Your task to perform on an android device: Turn on the flashlight Image 0: 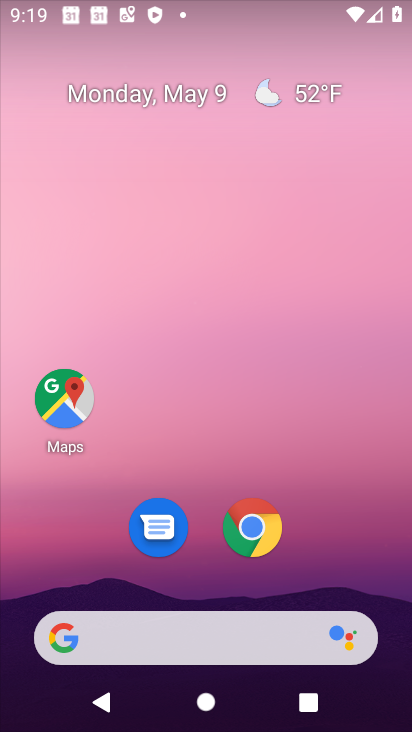
Step 0: drag from (226, 580) to (274, 183)
Your task to perform on an android device: Turn on the flashlight Image 1: 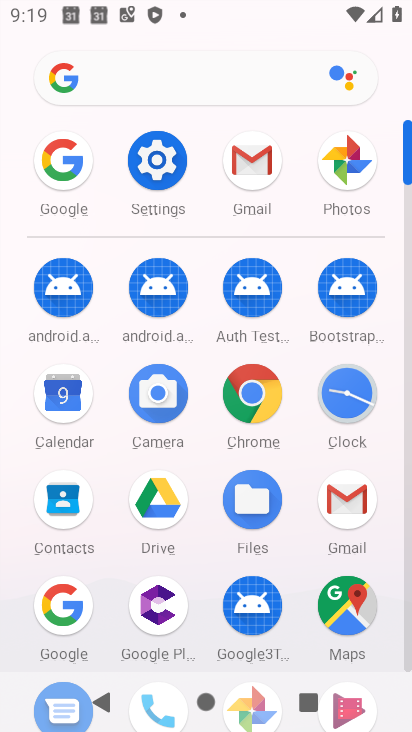
Step 1: click (158, 160)
Your task to perform on an android device: Turn on the flashlight Image 2: 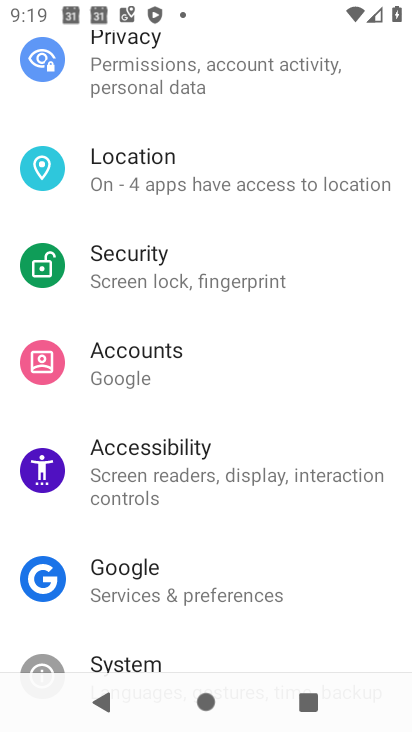
Step 2: drag from (213, 93) to (284, 725)
Your task to perform on an android device: Turn on the flashlight Image 3: 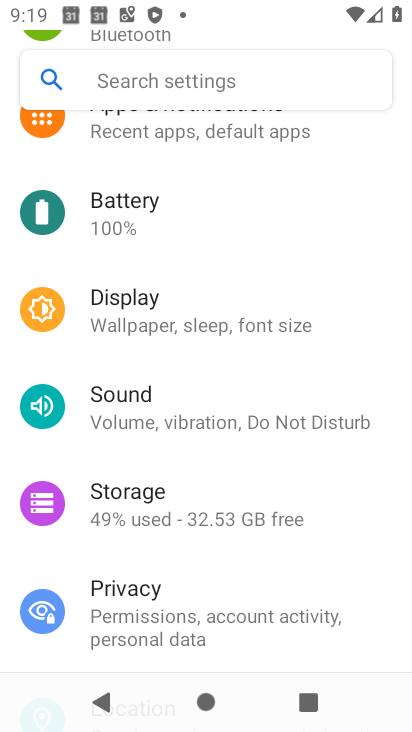
Step 3: click (183, 72)
Your task to perform on an android device: Turn on the flashlight Image 4: 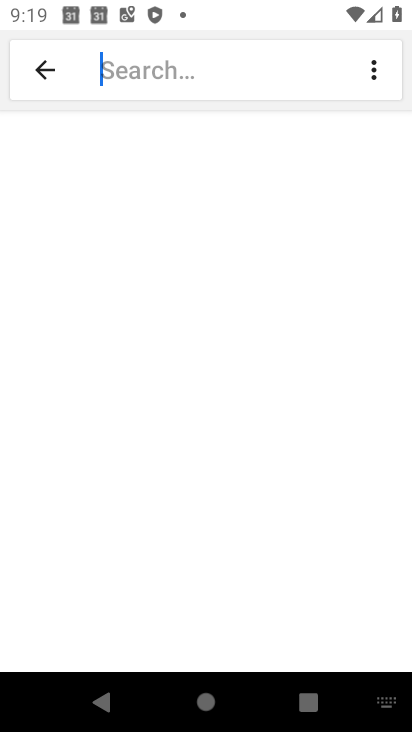
Step 4: type "flash"
Your task to perform on an android device: Turn on the flashlight Image 5: 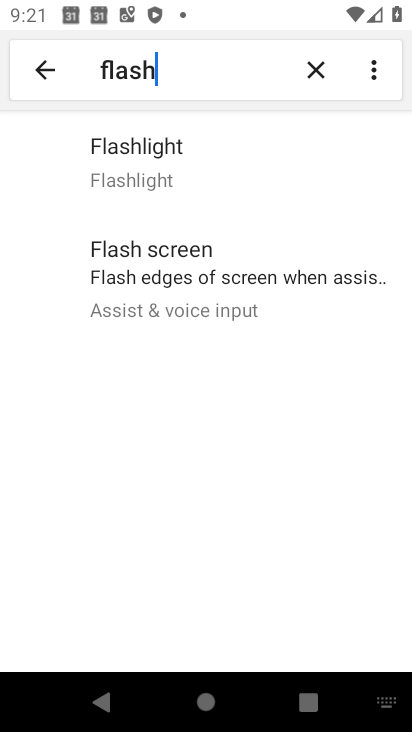
Step 5: task complete